Your task to perform on an android device: Open Yahoo.com Image 0: 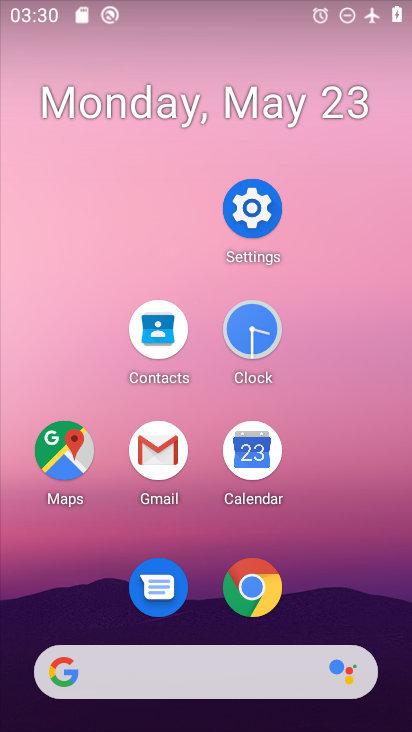
Step 0: click (219, 674)
Your task to perform on an android device: Open Yahoo.com Image 1: 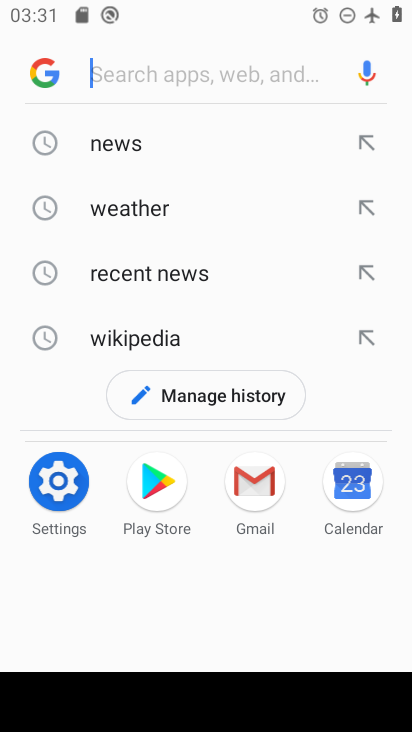
Step 1: type "yahoo.com"
Your task to perform on an android device: Open Yahoo.com Image 2: 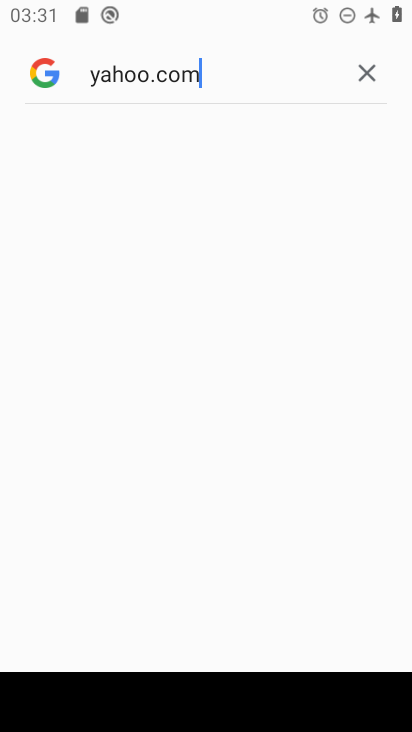
Step 2: task complete